Your task to perform on an android device: Open Google Maps and go to "Timeline" Image 0: 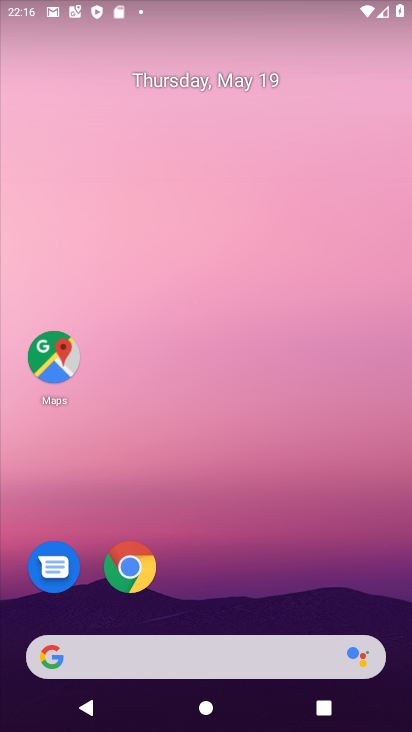
Step 0: click (51, 353)
Your task to perform on an android device: Open Google Maps and go to "Timeline" Image 1: 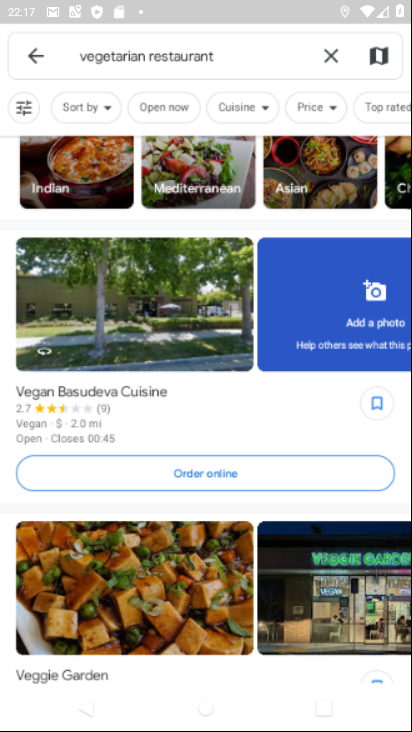
Step 1: click (33, 56)
Your task to perform on an android device: Open Google Maps and go to "Timeline" Image 2: 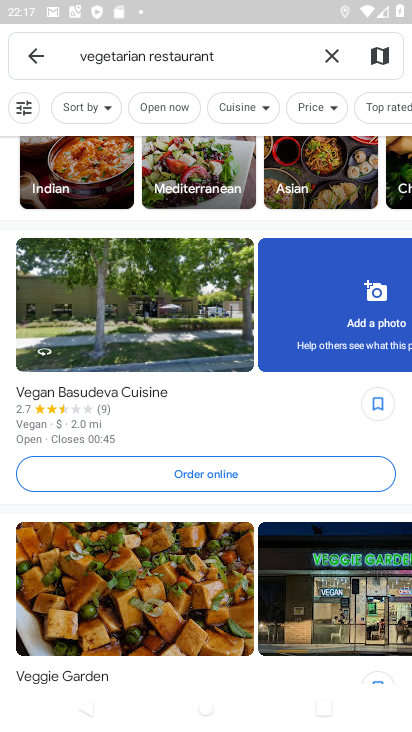
Step 2: click (42, 61)
Your task to perform on an android device: Open Google Maps and go to "Timeline" Image 3: 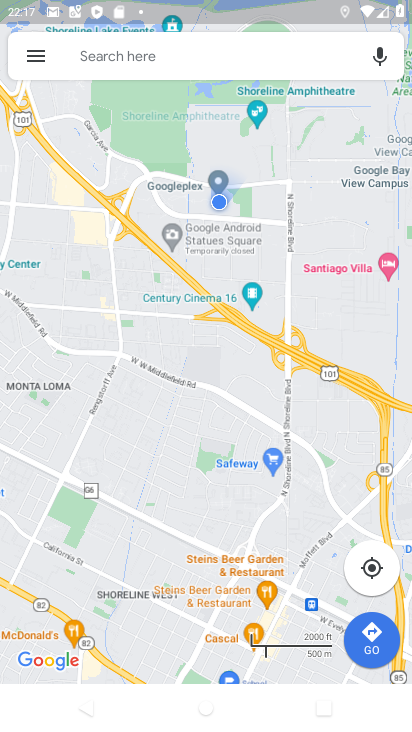
Step 3: click (28, 59)
Your task to perform on an android device: Open Google Maps and go to "Timeline" Image 4: 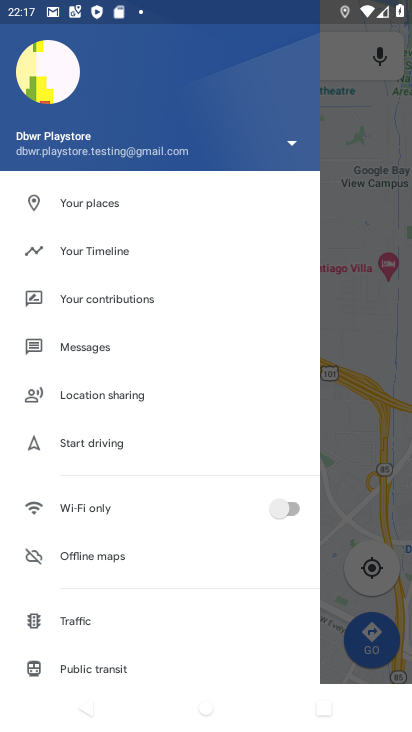
Step 4: click (139, 246)
Your task to perform on an android device: Open Google Maps and go to "Timeline" Image 5: 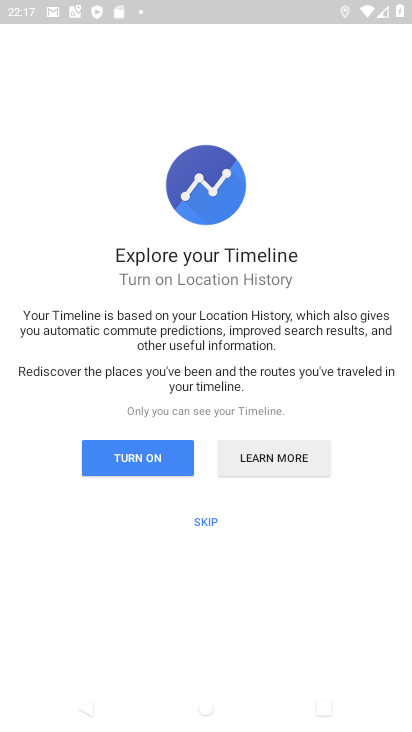
Step 5: click (136, 462)
Your task to perform on an android device: Open Google Maps and go to "Timeline" Image 6: 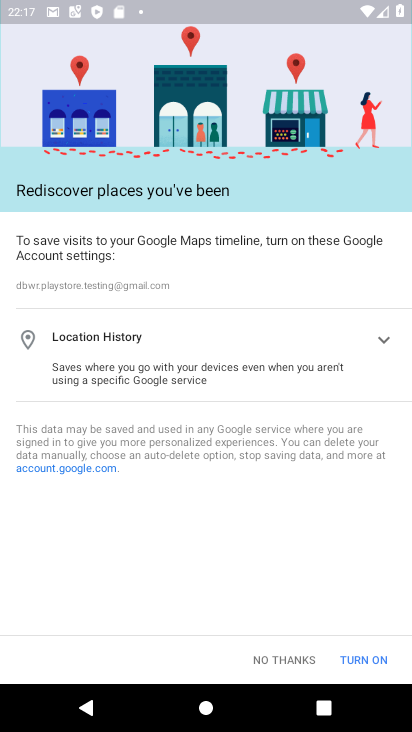
Step 6: click (286, 659)
Your task to perform on an android device: Open Google Maps and go to "Timeline" Image 7: 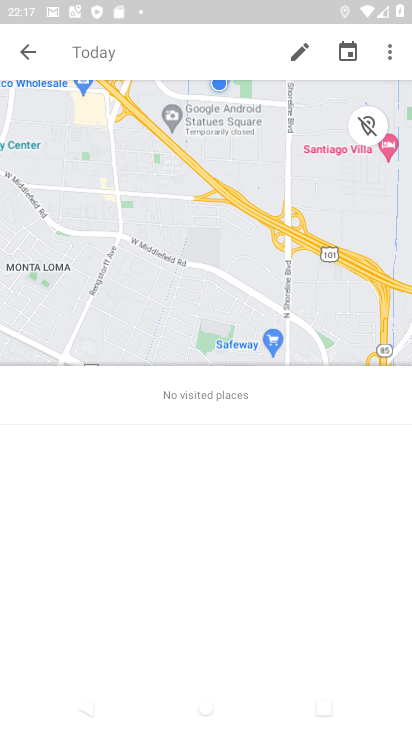
Step 7: task complete